Your task to perform on an android device: remove spam from my inbox in the gmail app Image 0: 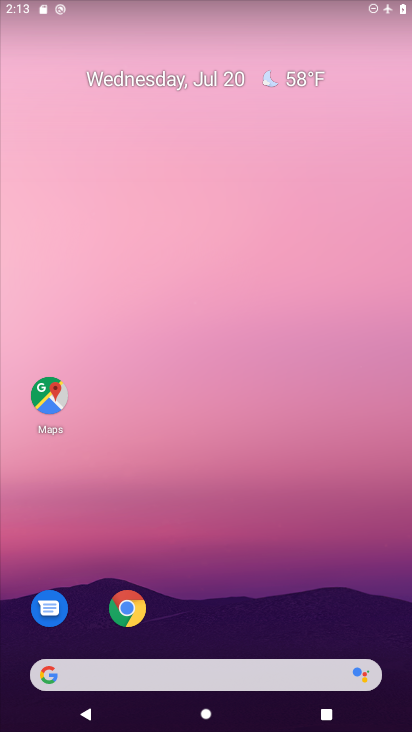
Step 0: drag from (235, 696) to (222, 143)
Your task to perform on an android device: remove spam from my inbox in the gmail app Image 1: 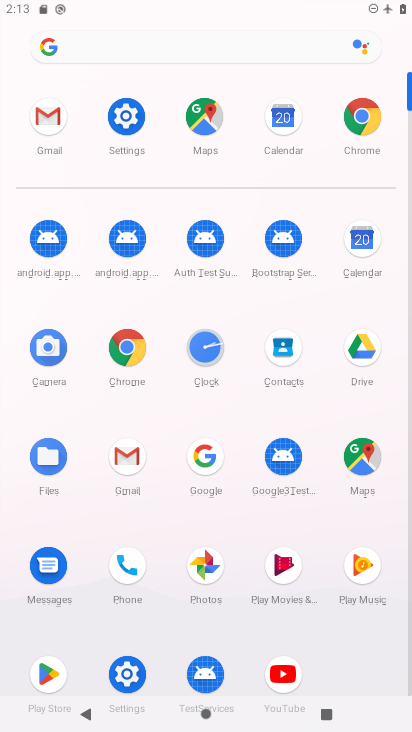
Step 1: click (131, 112)
Your task to perform on an android device: remove spam from my inbox in the gmail app Image 2: 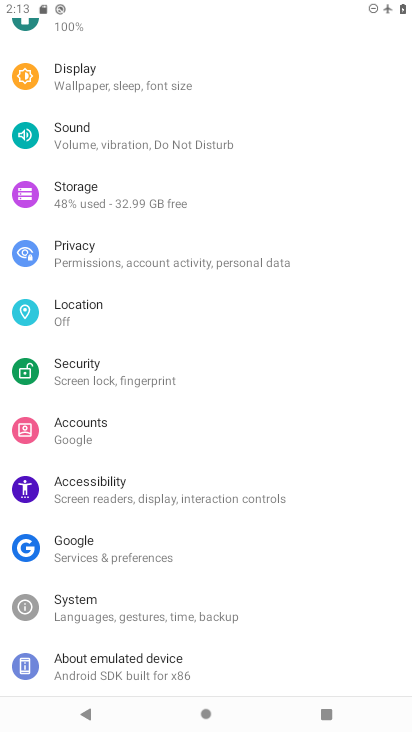
Step 2: drag from (202, 140) to (208, 611)
Your task to perform on an android device: remove spam from my inbox in the gmail app Image 3: 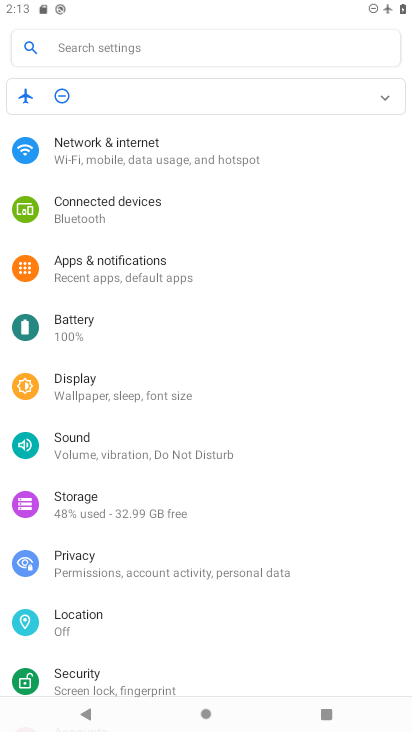
Step 3: click (117, 156)
Your task to perform on an android device: remove spam from my inbox in the gmail app Image 4: 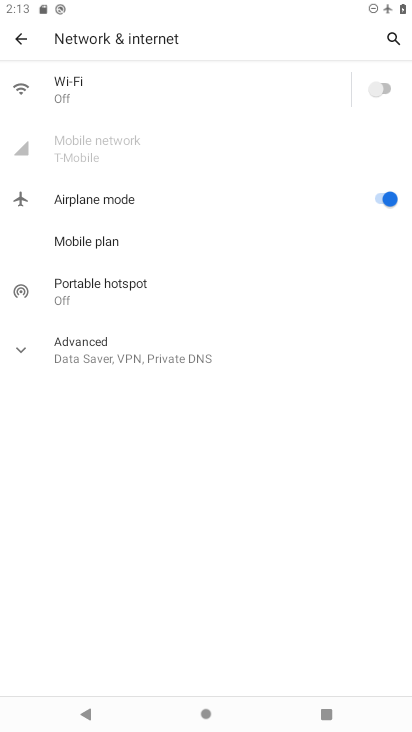
Step 4: click (380, 192)
Your task to perform on an android device: remove spam from my inbox in the gmail app Image 5: 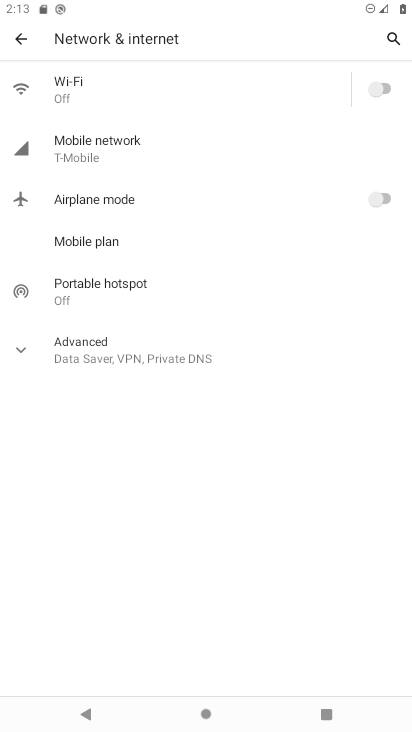
Step 5: press home button
Your task to perform on an android device: remove spam from my inbox in the gmail app Image 6: 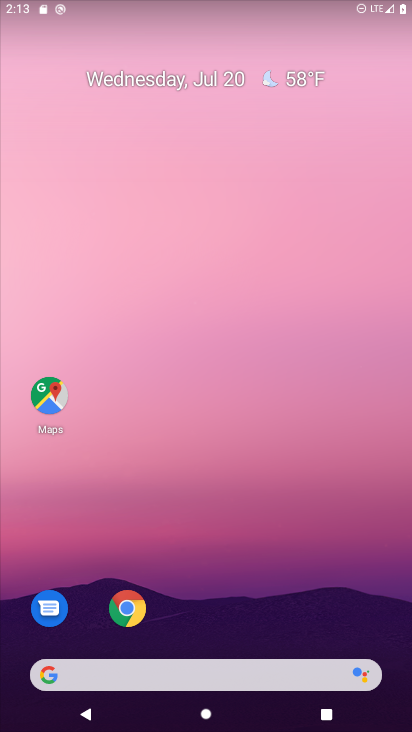
Step 6: drag from (243, 717) to (243, 155)
Your task to perform on an android device: remove spam from my inbox in the gmail app Image 7: 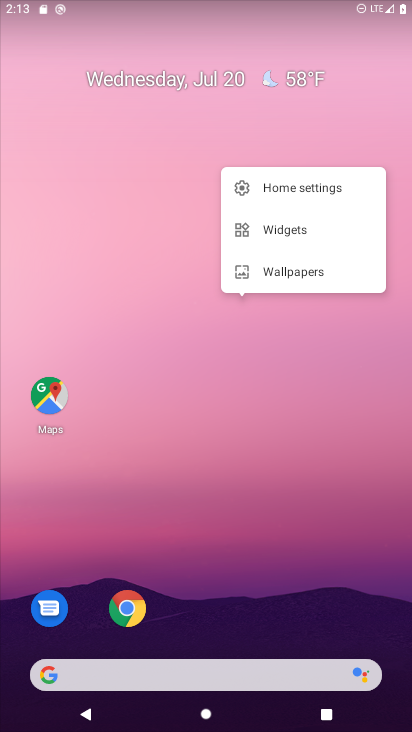
Step 7: click (225, 410)
Your task to perform on an android device: remove spam from my inbox in the gmail app Image 8: 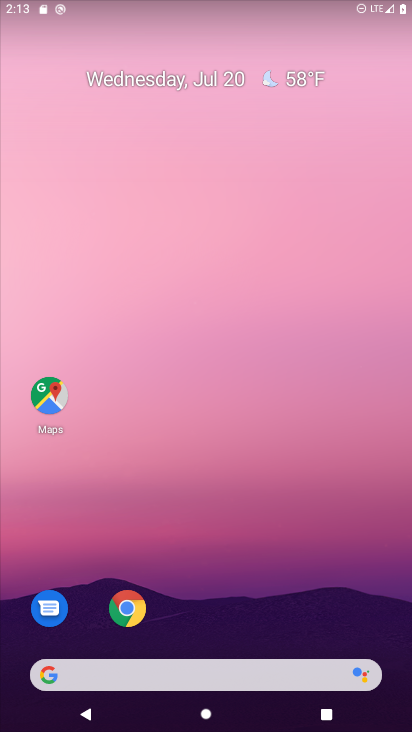
Step 8: drag from (236, 645) to (239, 163)
Your task to perform on an android device: remove spam from my inbox in the gmail app Image 9: 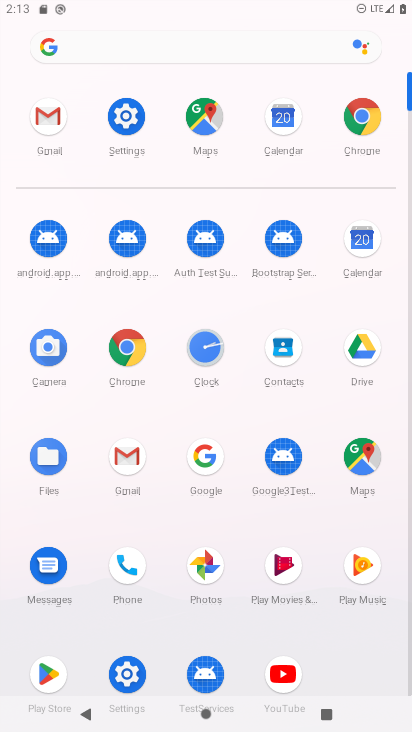
Step 9: click (129, 451)
Your task to perform on an android device: remove spam from my inbox in the gmail app Image 10: 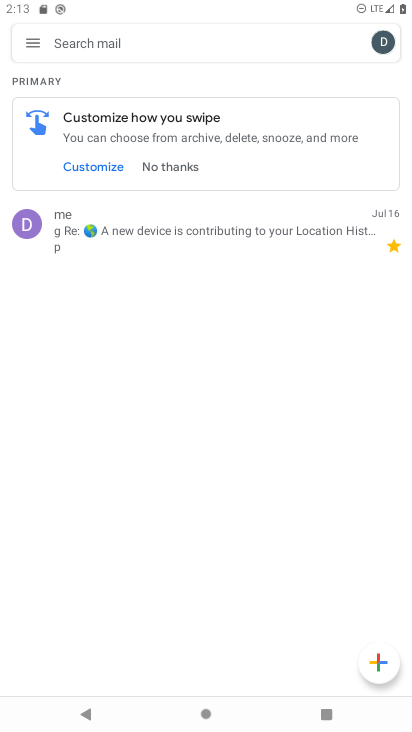
Step 10: click (190, 218)
Your task to perform on an android device: remove spam from my inbox in the gmail app Image 11: 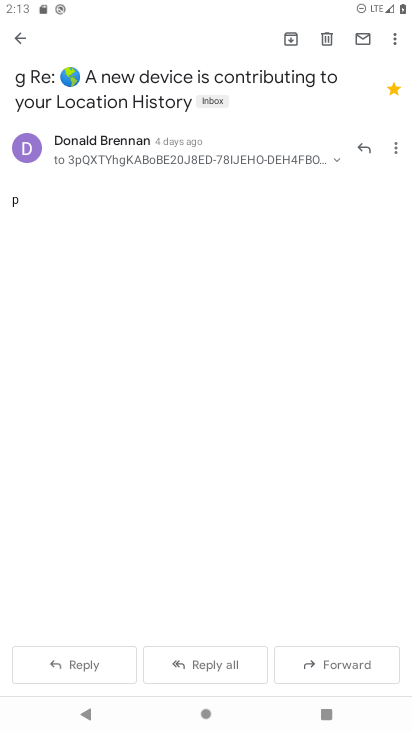
Step 11: click (394, 39)
Your task to perform on an android device: remove spam from my inbox in the gmail app Image 12: 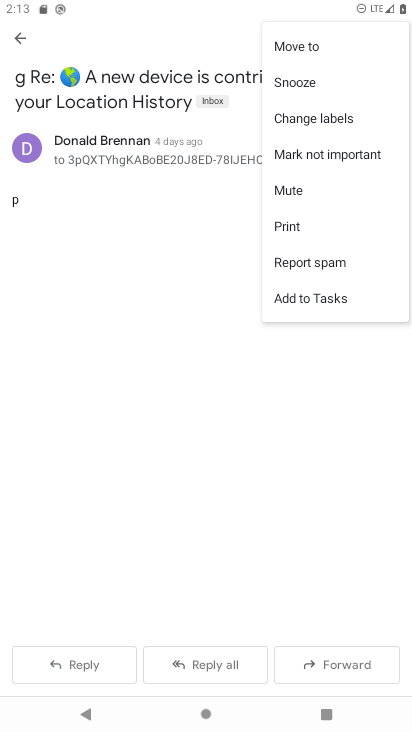
Step 12: click (155, 277)
Your task to perform on an android device: remove spam from my inbox in the gmail app Image 13: 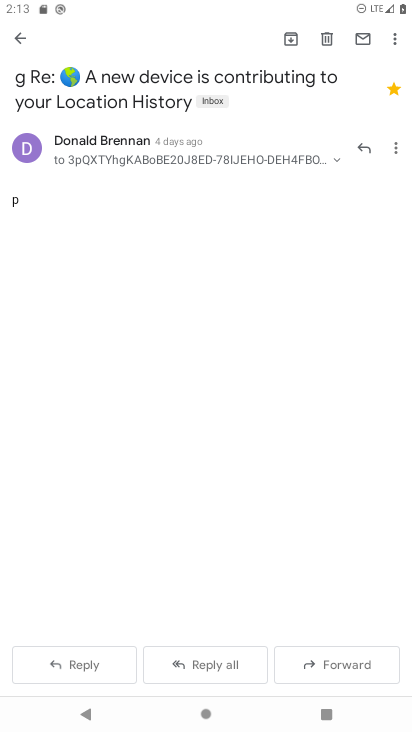
Step 13: click (18, 37)
Your task to perform on an android device: remove spam from my inbox in the gmail app Image 14: 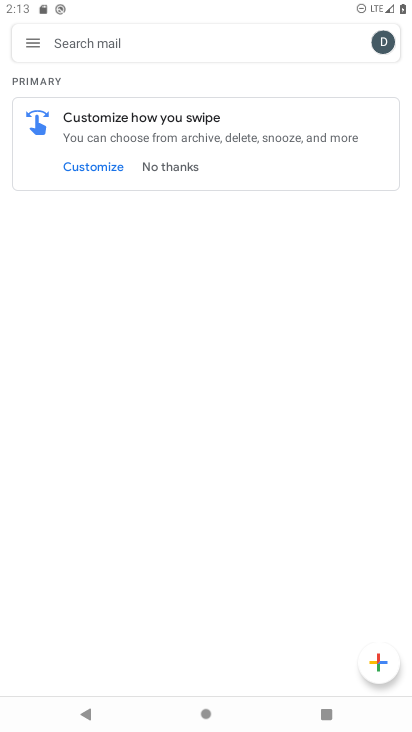
Step 14: task complete